Your task to perform on an android device: turn on notifications settings in the gmail app Image 0: 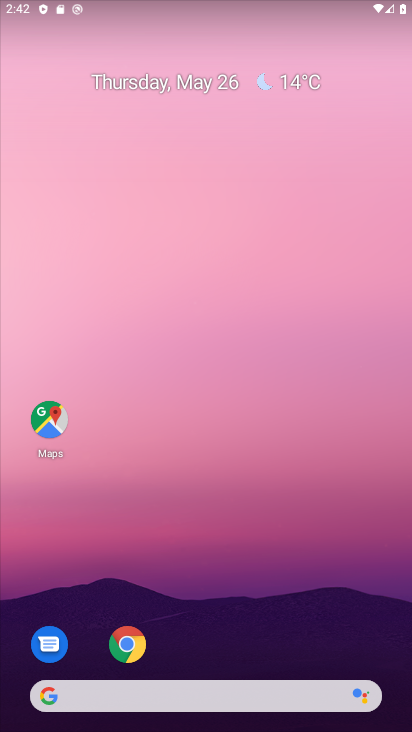
Step 0: drag from (289, 589) to (248, 116)
Your task to perform on an android device: turn on notifications settings in the gmail app Image 1: 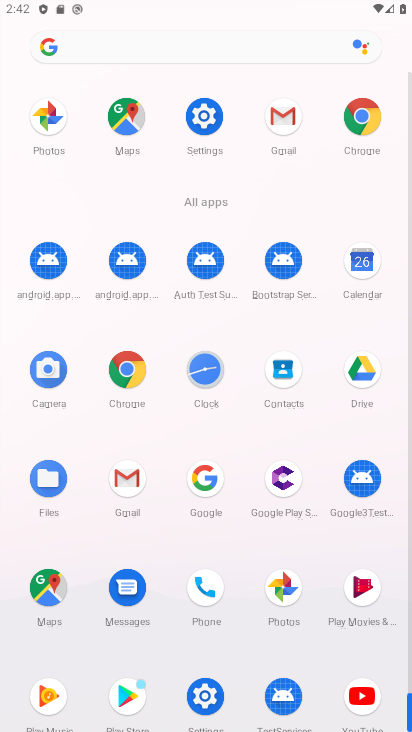
Step 1: click (130, 495)
Your task to perform on an android device: turn on notifications settings in the gmail app Image 2: 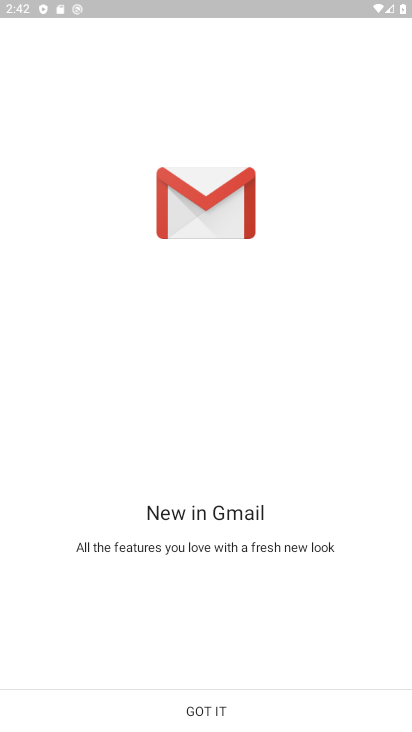
Step 2: click (220, 718)
Your task to perform on an android device: turn on notifications settings in the gmail app Image 3: 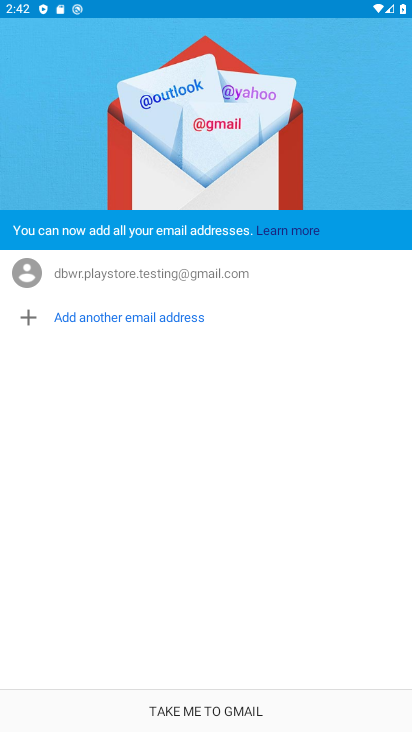
Step 3: click (132, 324)
Your task to perform on an android device: turn on notifications settings in the gmail app Image 4: 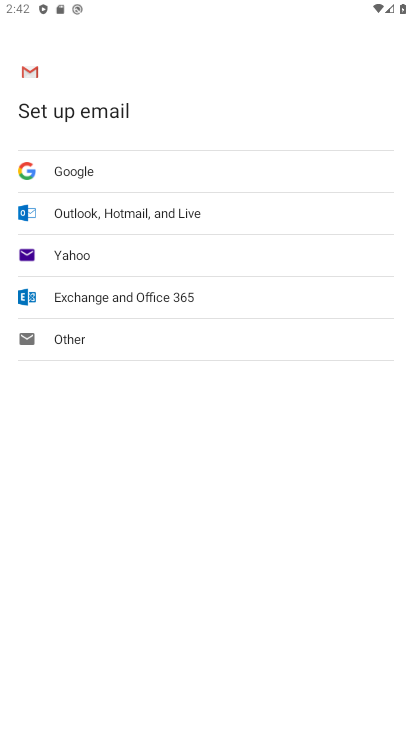
Step 4: press home button
Your task to perform on an android device: turn on notifications settings in the gmail app Image 5: 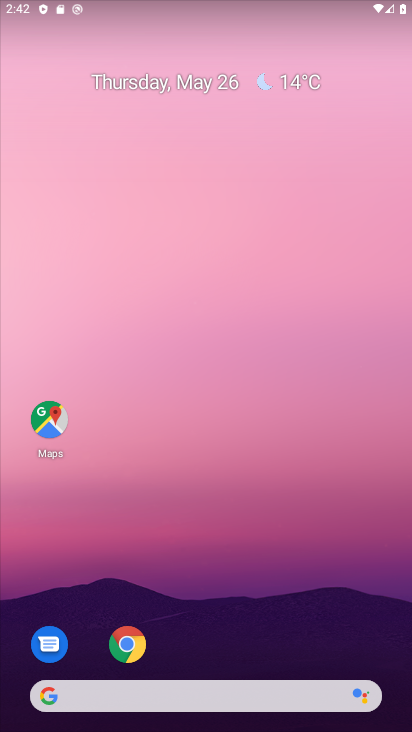
Step 5: drag from (340, 538) to (312, 196)
Your task to perform on an android device: turn on notifications settings in the gmail app Image 6: 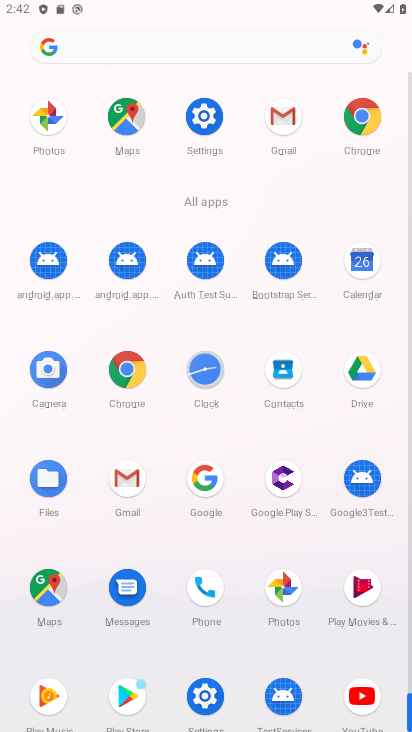
Step 6: click (124, 489)
Your task to perform on an android device: turn on notifications settings in the gmail app Image 7: 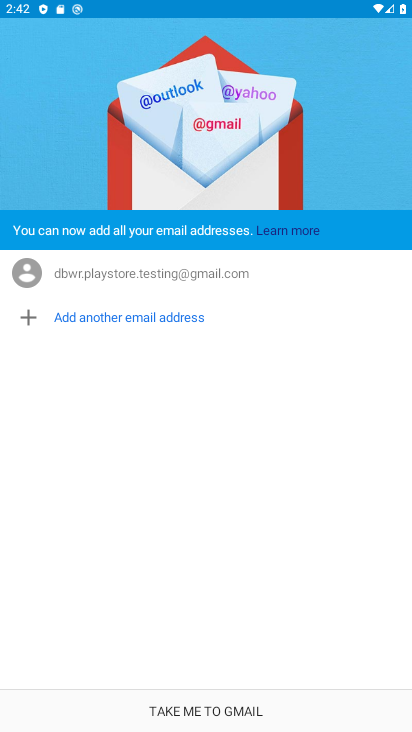
Step 7: click (211, 709)
Your task to perform on an android device: turn on notifications settings in the gmail app Image 8: 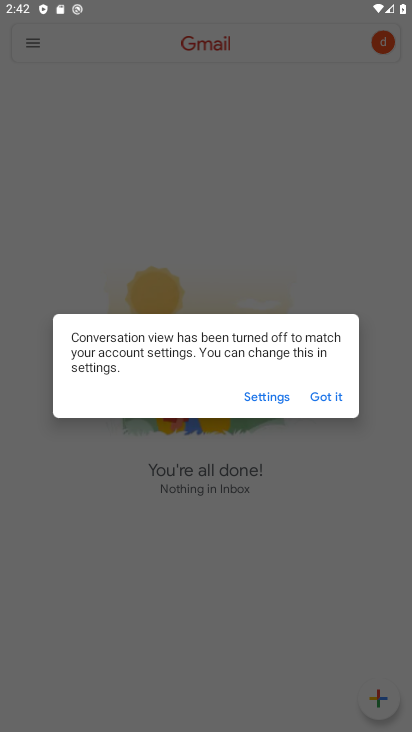
Step 8: click (328, 400)
Your task to perform on an android device: turn on notifications settings in the gmail app Image 9: 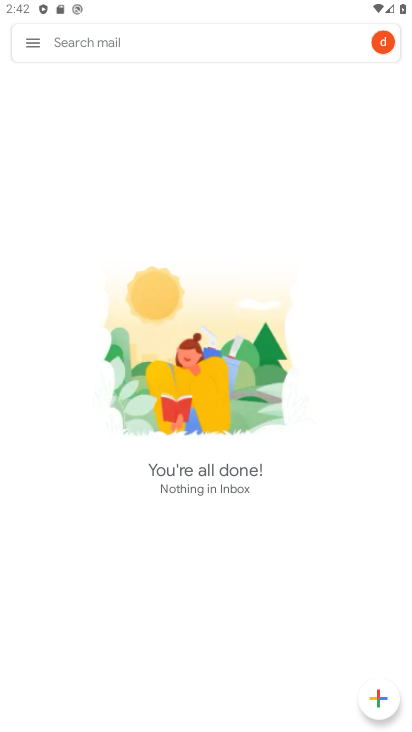
Step 9: click (38, 38)
Your task to perform on an android device: turn on notifications settings in the gmail app Image 10: 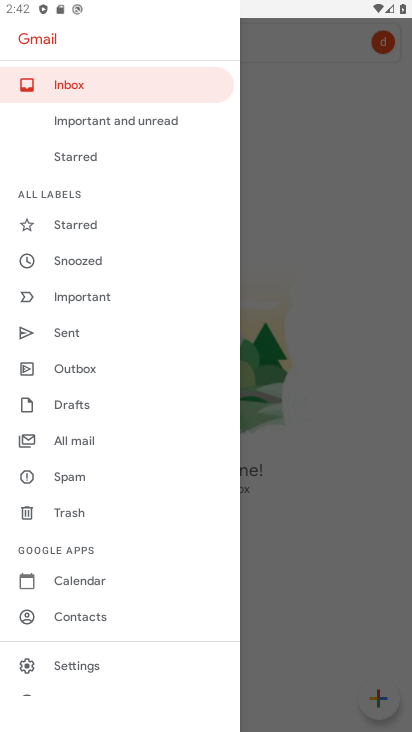
Step 10: click (107, 669)
Your task to perform on an android device: turn on notifications settings in the gmail app Image 11: 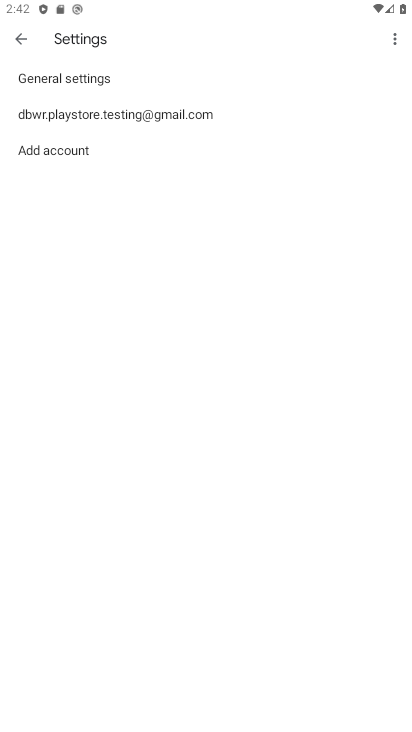
Step 11: click (128, 102)
Your task to perform on an android device: turn on notifications settings in the gmail app Image 12: 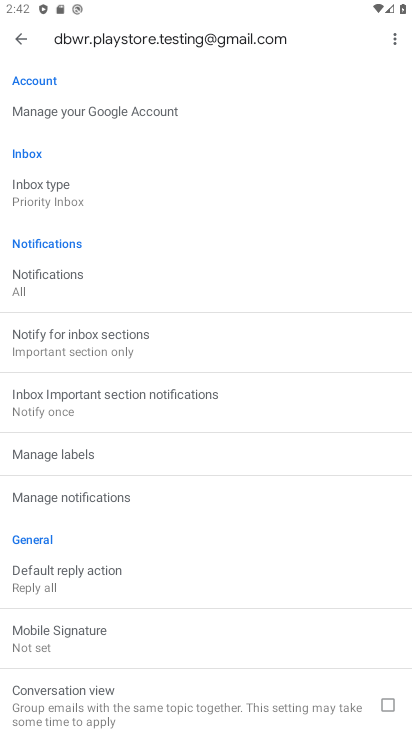
Step 12: click (60, 283)
Your task to perform on an android device: turn on notifications settings in the gmail app Image 13: 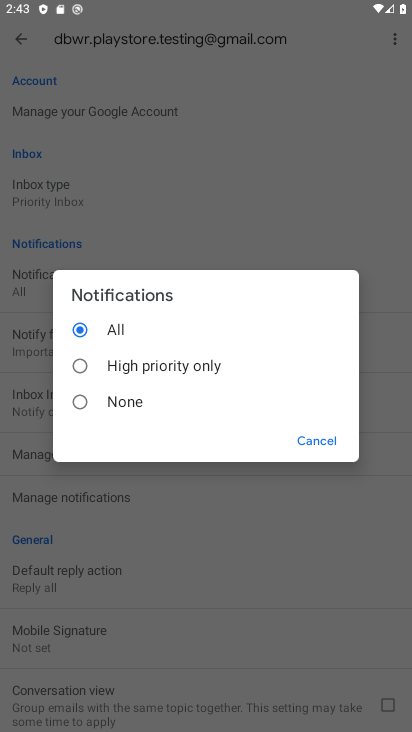
Step 13: task complete